Your task to perform on an android device: turn on location history Image 0: 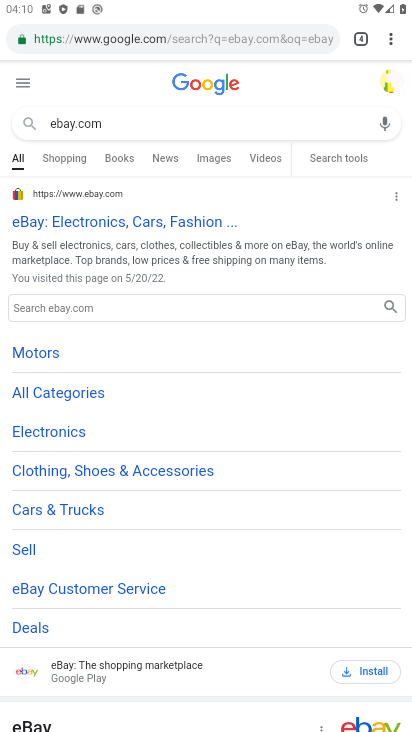
Step 0: press home button
Your task to perform on an android device: turn on location history Image 1: 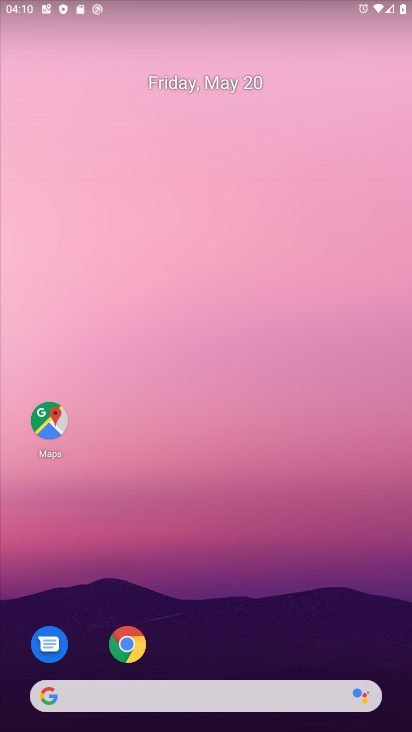
Step 1: drag from (255, 625) to (297, 61)
Your task to perform on an android device: turn on location history Image 2: 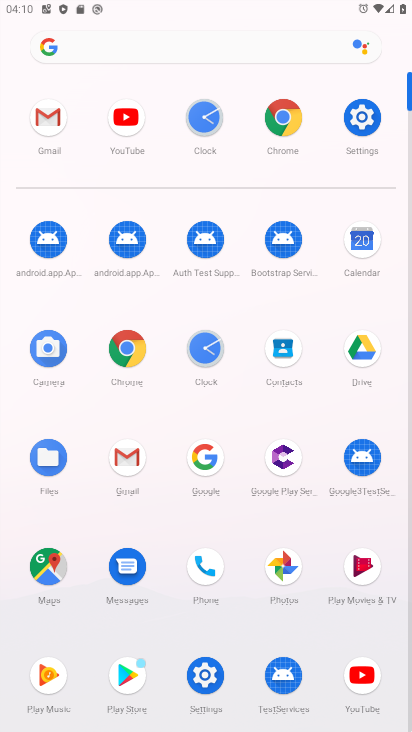
Step 2: click (349, 129)
Your task to perform on an android device: turn on location history Image 3: 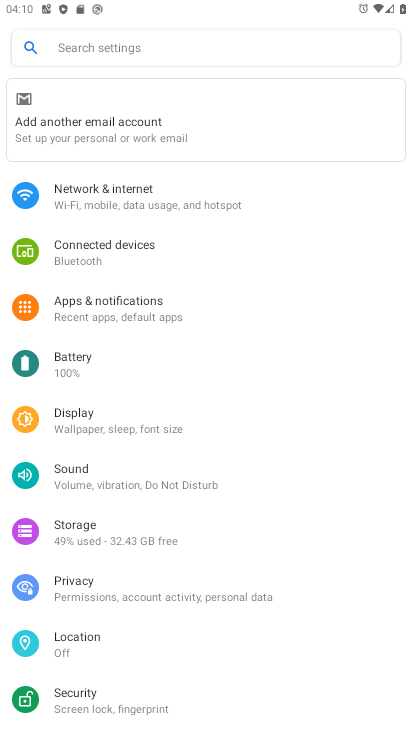
Step 3: click (96, 636)
Your task to perform on an android device: turn on location history Image 4: 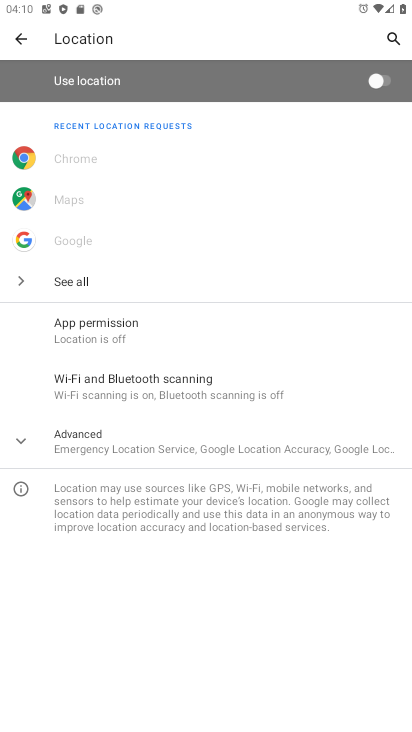
Step 4: click (150, 440)
Your task to perform on an android device: turn on location history Image 5: 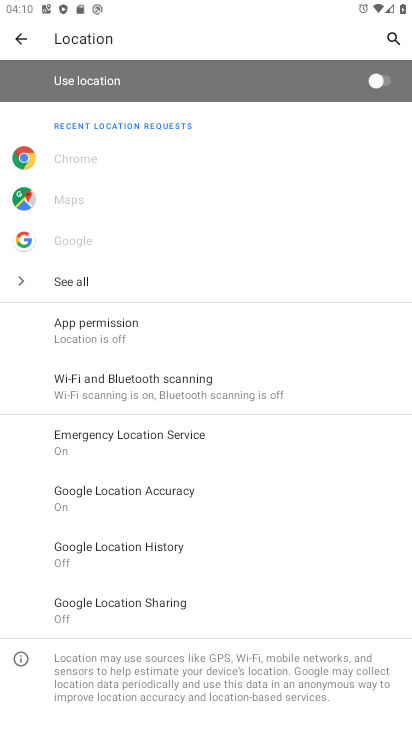
Step 5: click (117, 548)
Your task to perform on an android device: turn on location history Image 6: 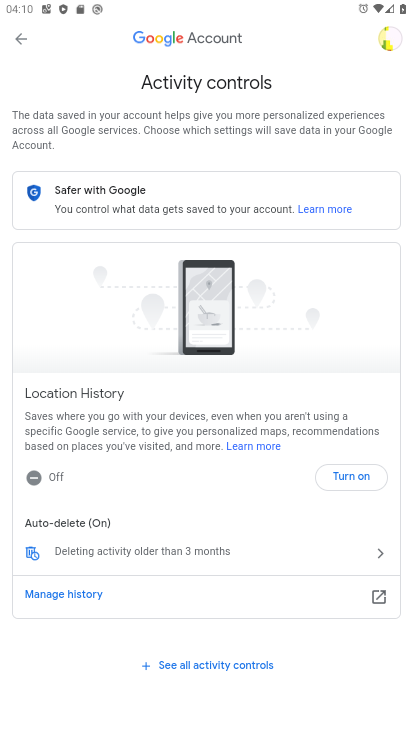
Step 6: click (349, 479)
Your task to perform on an android device: turn on location history Image 7: 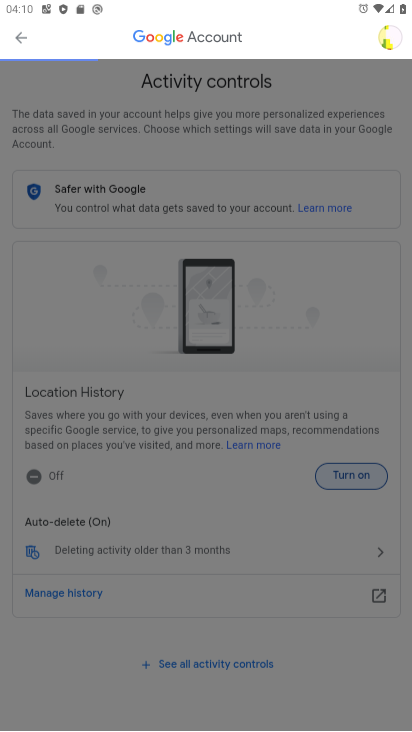
Step 7: click (349, 479)
Your task to perform on an android device: turn on location history Image 8: 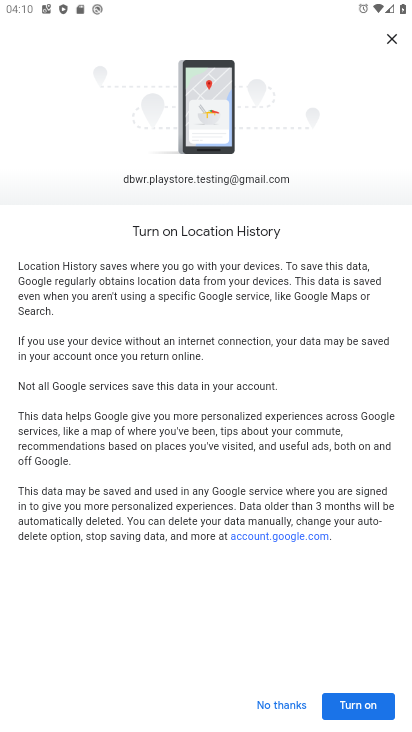
Step 8: click (351, 696)
Your task to perform on an android device: turn on location history Image 9: 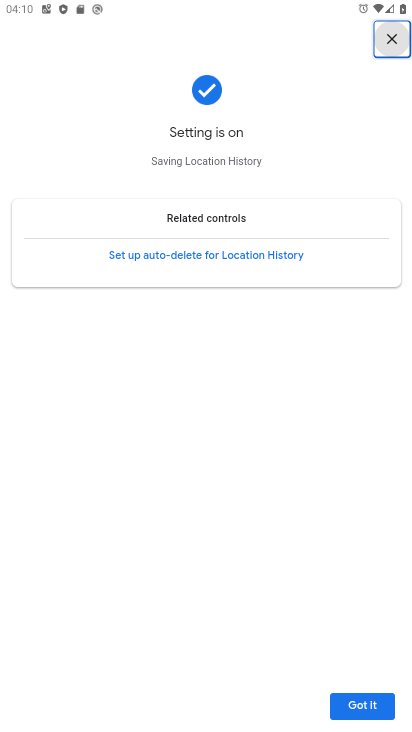
Step 9: task complete